Your task to perform on an android device: Open ESPN.com Image 0: 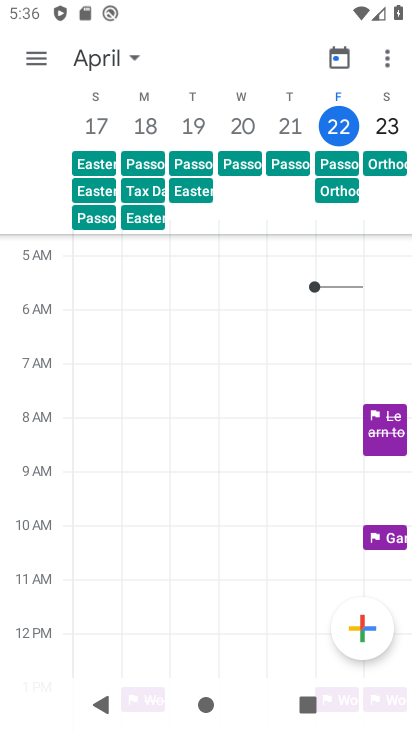
Step 0: press home button
Your task to perform on an android device: Open ESPN.com Image 1: 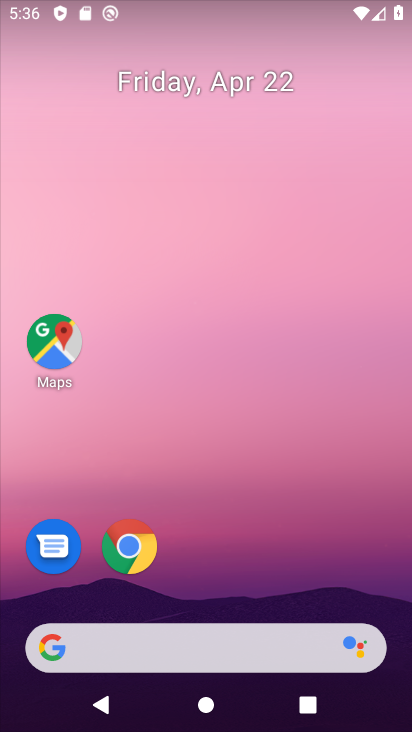
Step 1: drag from (243, 590) to (179, 149)
Your task to perform on an android device: Open ESPN.com Image 2: 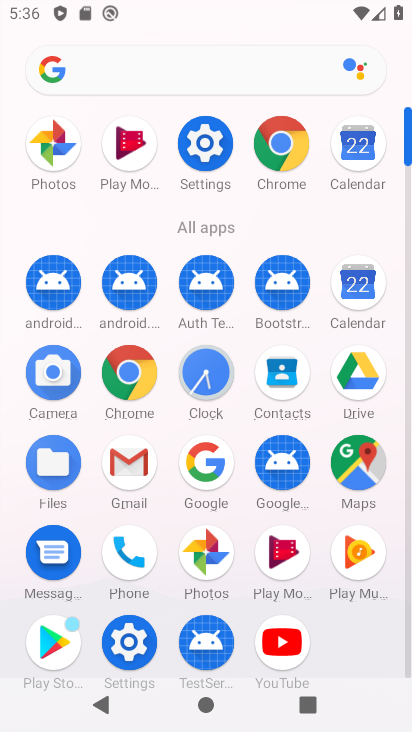
Step 2: click (283, 175)
Your task to perform on an android device: Open ESPN.com Image 3: 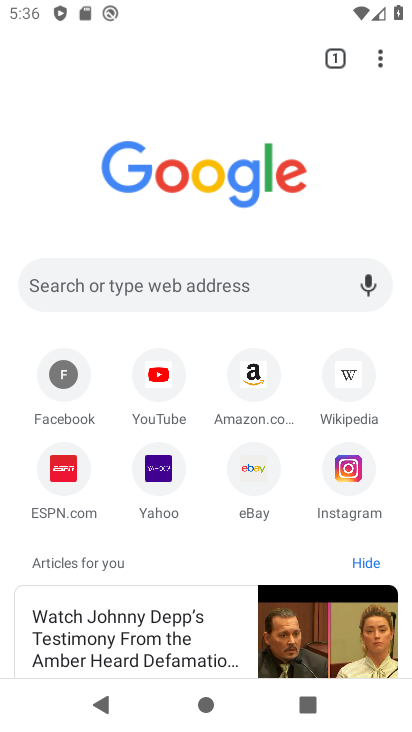
Step 3: click (82, 483)
Your task to perform on an android device: Open ESPN.com Image 4: 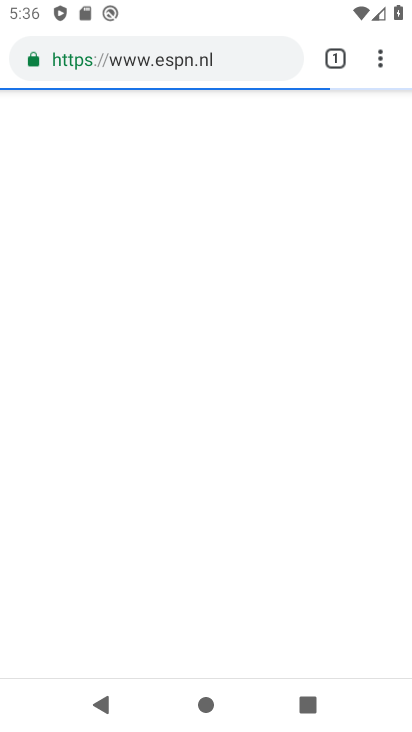
Step 4: task complete